Your task to perform on an android device: Do I have any events today? Image 0: 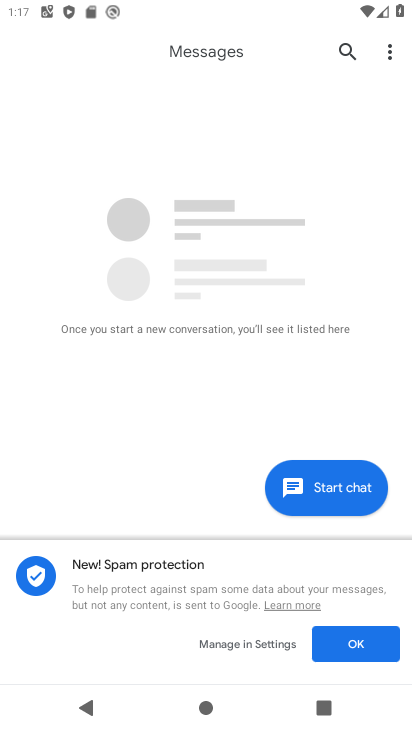
Step 0: press back button
Your task to perform on an android device: Do I have any events today? Image 1: 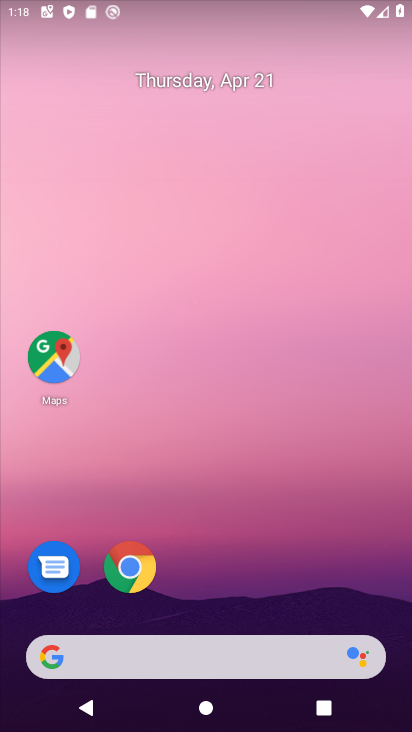
Step 1: drag from (267, 407) to (308, 96)
Your task to perform on an android device: Do I have any events today? Image 2: 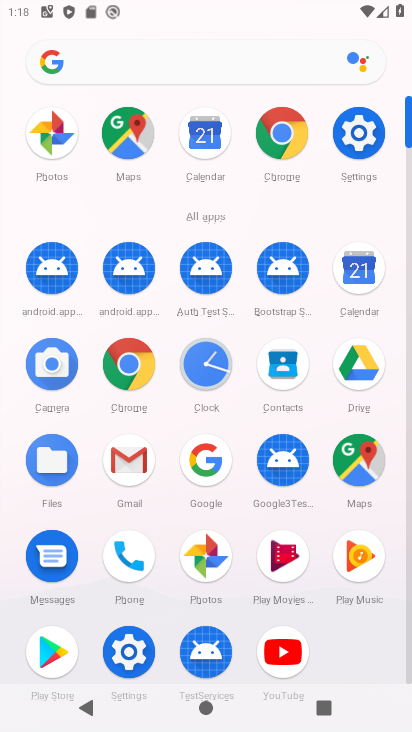
Step 2: click (354, 271)
Your task to perform on an android device: Do I have any events today? Image 3: 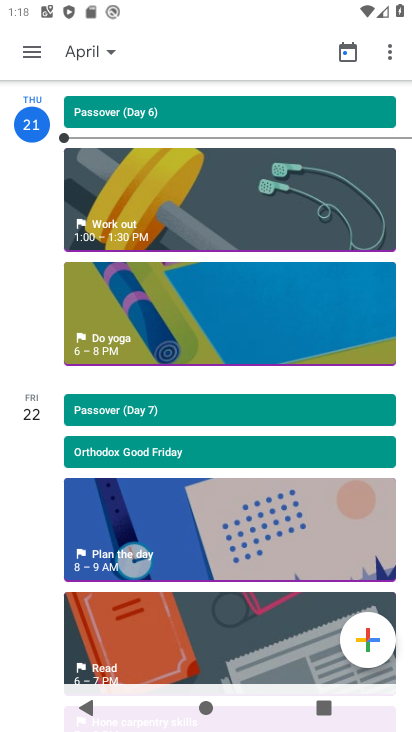
Step 3: click (135, 203)
Your task to perform on an android device: Do I have any events today? Image 4: 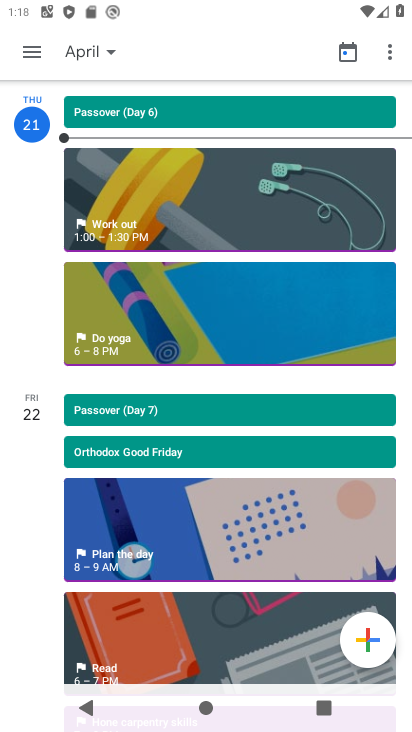
Step 4: task complete